Your task to perform on an android device: turn off notifications settings in the gmail app Image 0: 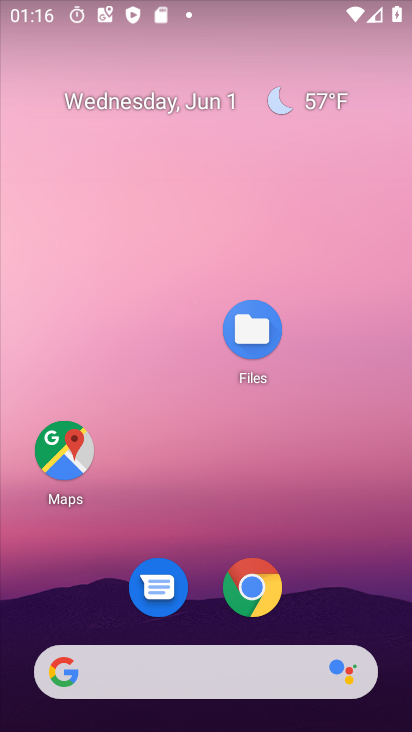
Step 0: drag from (210, 80) to (243, 266)
Your task to perform on an android device: turn off notifications settings in the gmail app Image 1: 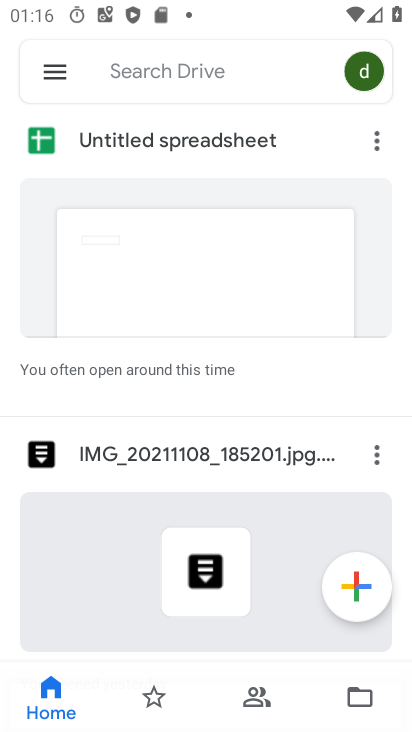
Step 1: press home button
Your task to perform on an android device: turn off notifications settings in the gmail app Image 2: 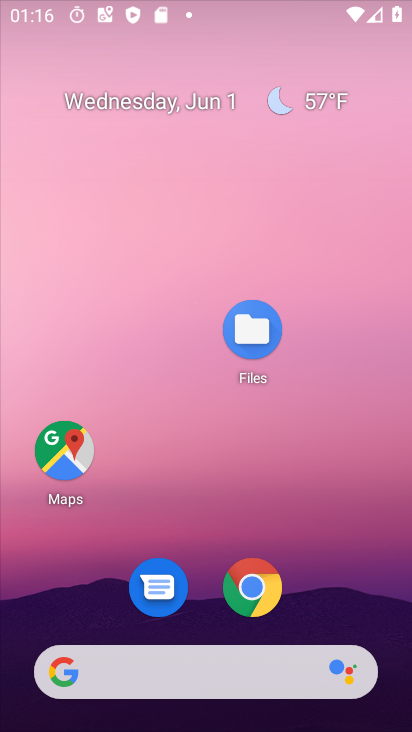
Step 2: drag from (356, 607) to (199, 64)
Your task to perform on an android device: turn off notifications settings in the gmail app Image 3: 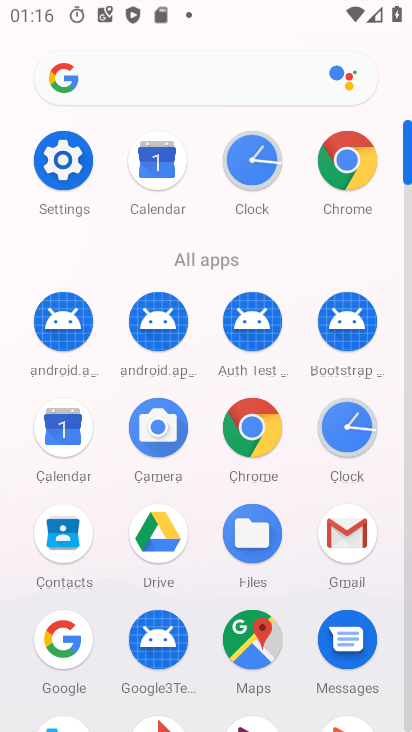
Step 3: click (359, 522)
Your task to perform on an android device: turn off notifications settings in the gmail app Image 4: 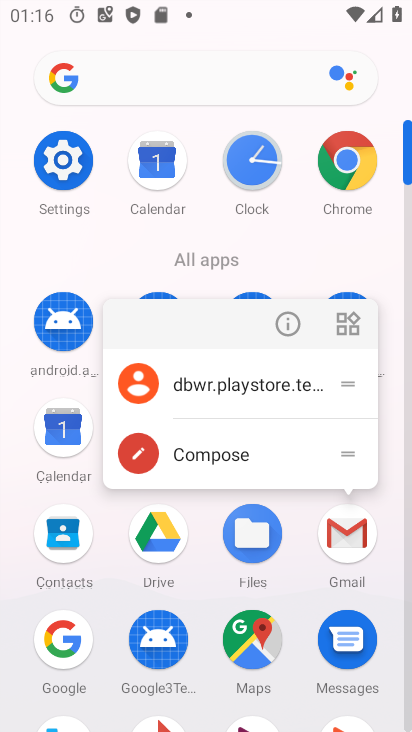
Step 4: click (285, 328)
Your task to perform on an android device: turn off notifications settings in the gmail app Image 5: 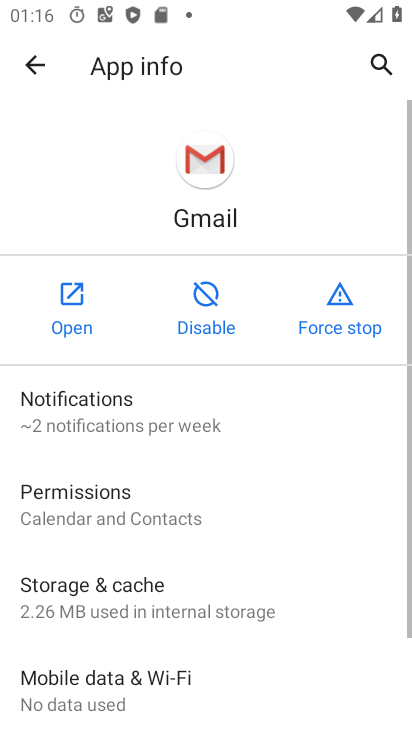
Step 5: click (191, 402)
Your task to perform on an android device: turn off notifications settings in the gmail app Image 6: 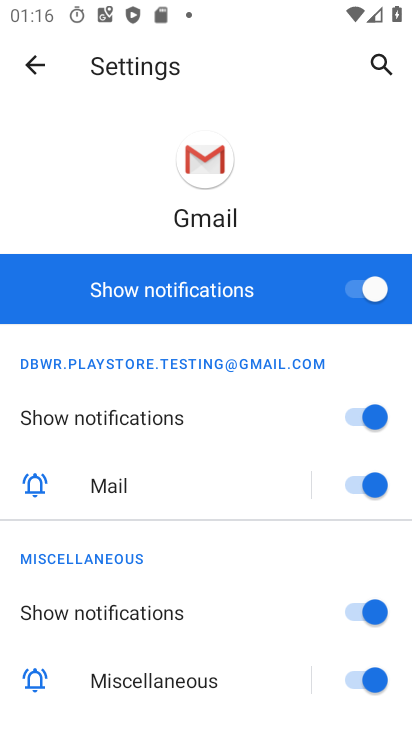
Step 6: click (238, 314)
Your task to perform on an android device: turn off notifications settings in the gmail app Image 7: 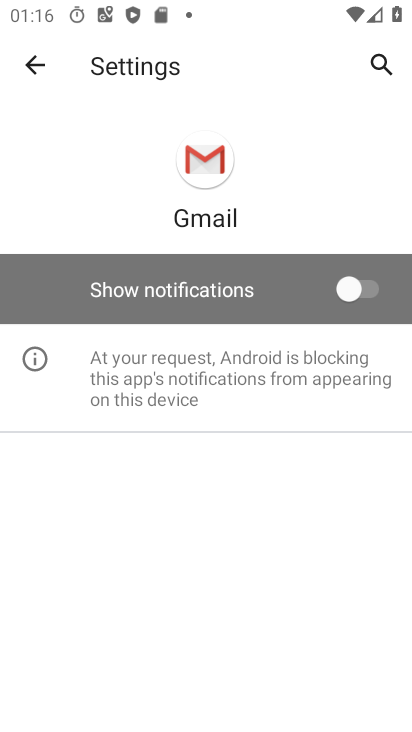
Step 7: task complete